Your task to perform on an android device: turn on translation in the chrome app Image 0: 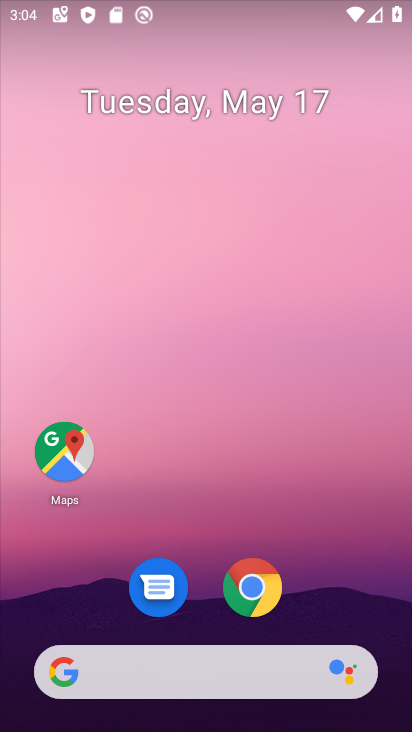
Step 0: drag from (268, 603) to (259, 29)
Your task to perform on an android device: turn on translation in the chrome app Image 1: 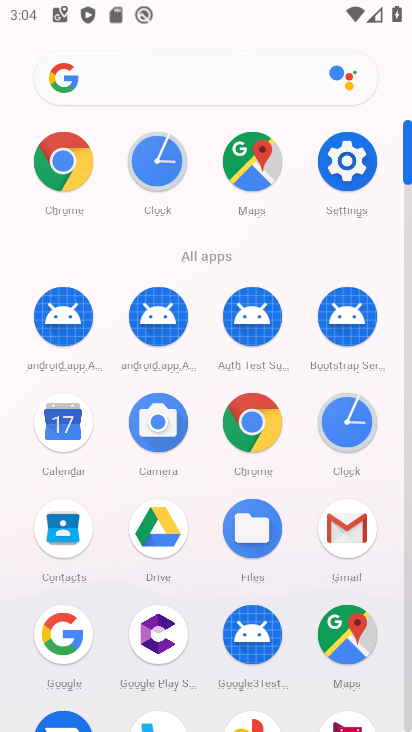
Step 1: click (252, 436)
Your task to perform on an android device: turn on translation in the chrome app Image 2: 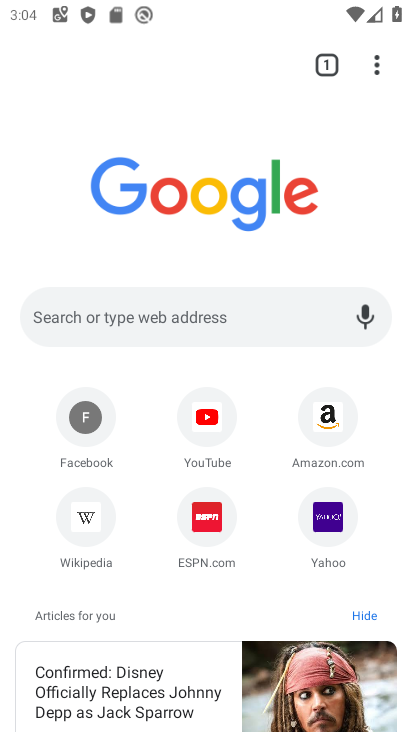
Step 2: click (377, 66)
Your task to perform on an android device: turn on translation in the chrome app Image 3: 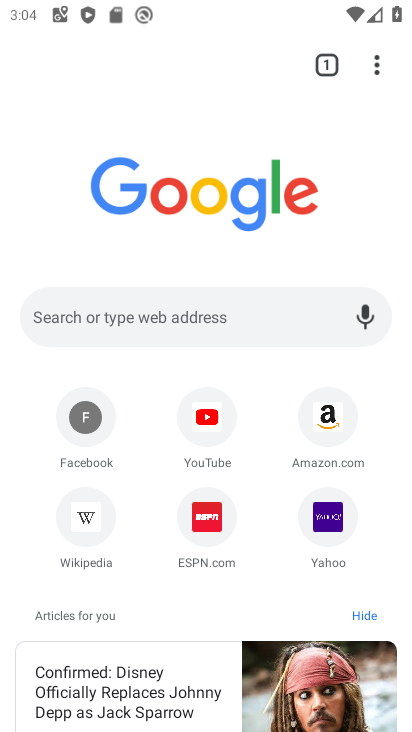
Step 3: drag from (369, 59) to (143, 552)
Your task to perform on an android device: turn on translation in the chrome app Image 4: 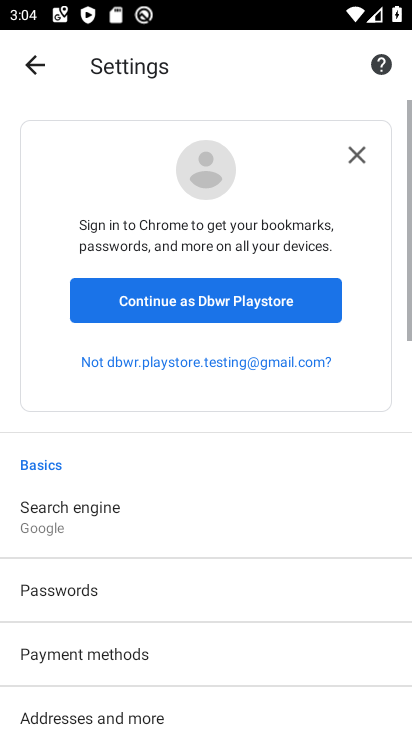
Step 4: drag from (93, 660) to (130, 52)
Your task to perform on an android device: turn on translation in the chrome app Image 5: 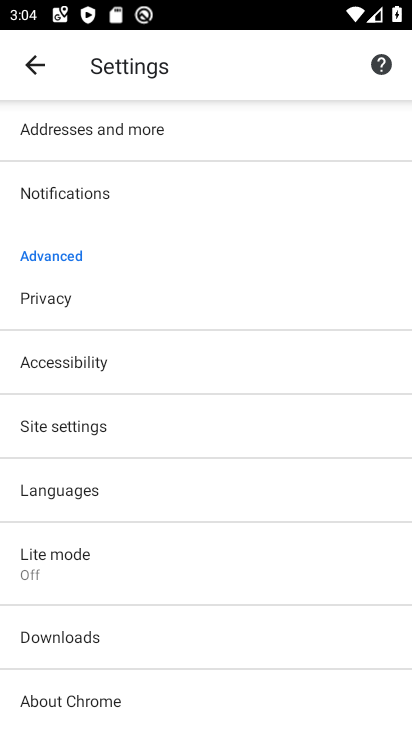
Step 5: click (97, 489)
Your task to perform on an android device: turn on translation in the chrome app Image 6: 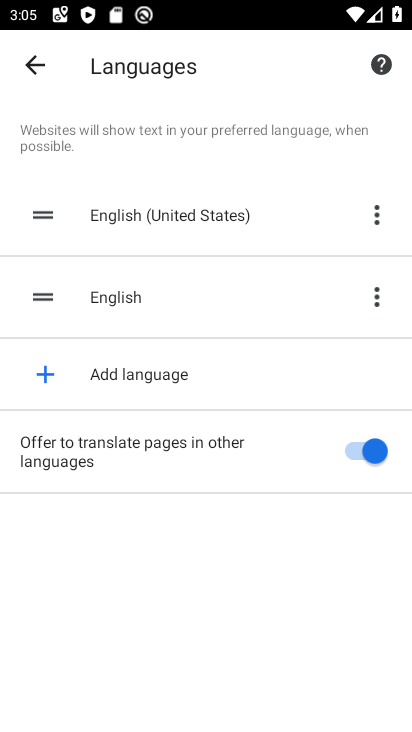
Step 6: task complete